Your task to perform on an android device: Do I have any events tomorrow? Image 0: 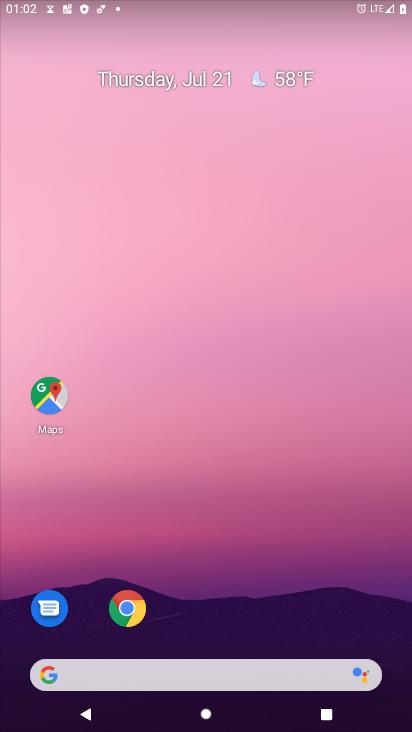
Step 0: drag from (233, 648) to (246, 4)
Your task to perform on an android device: Do I have any events tomorrow? Image 1: 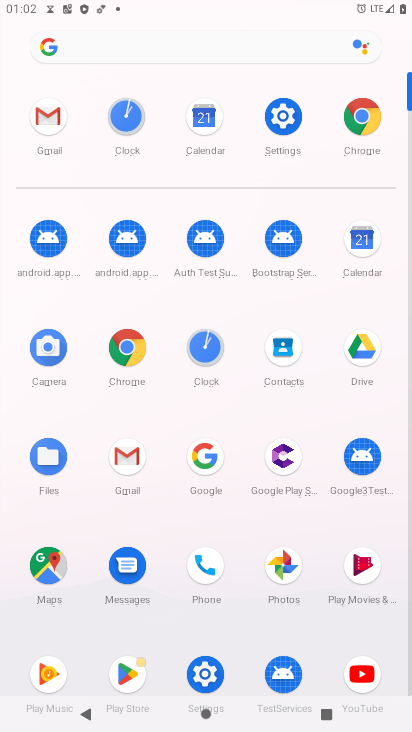
Step 1: click (361, 231)
Your task to perform on an android device: Do I have any events tomorrow? Image 2: 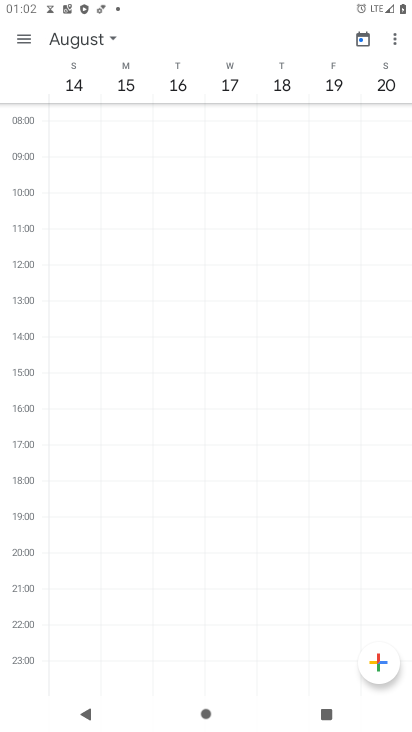
Step 2: click (109, 36)
Your task to perform on an android device: Do I have any events tomorrow? Image 3: 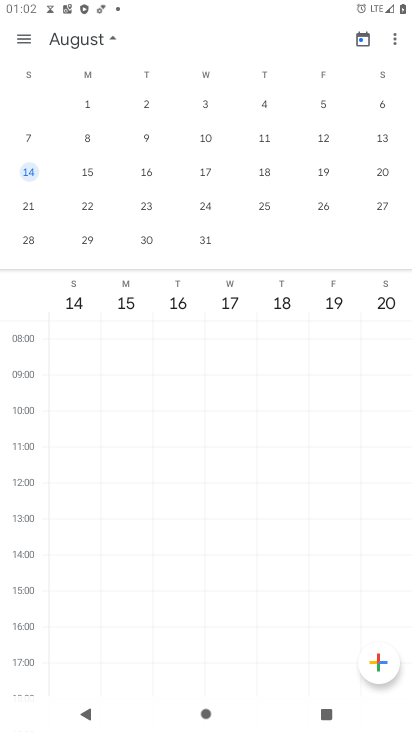
Step 3: drag from (30, 192) to (388, 204)
Your task to perform on an android device: Do I have any events tomorrow? Image 4: 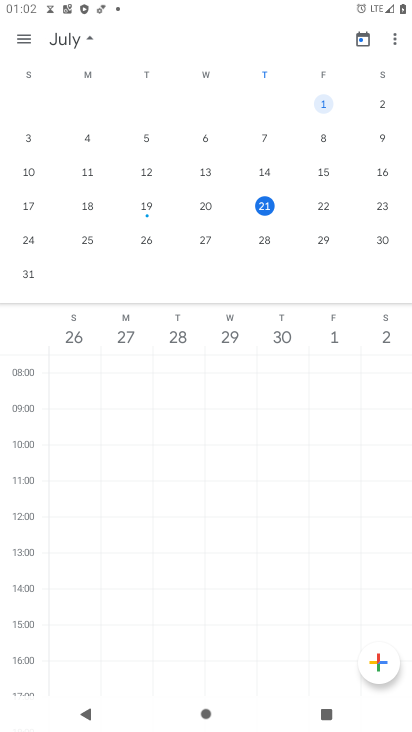
Step 4: click (323, 204)
Your task to perform on an android device: Do I have any events tomorrow? Image 5: 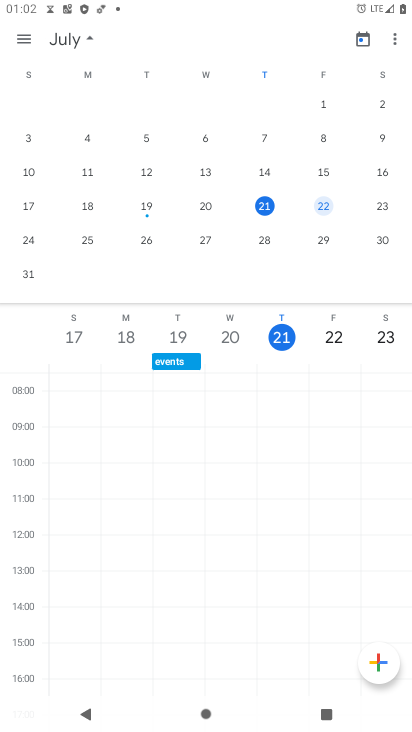
Step 5: click (332, 337)
Your task to perform on an android device: Do I have any events tomorrow? Image 6: 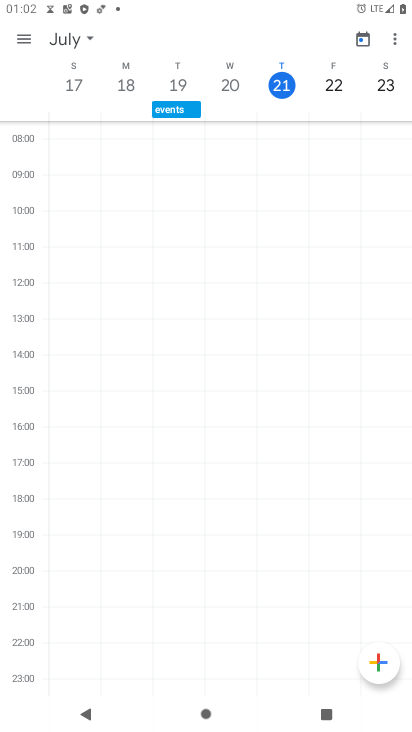
Step 6: click (286, 84)
Your task to perform on an android device: Do I have any events tomorrow? Image 7: 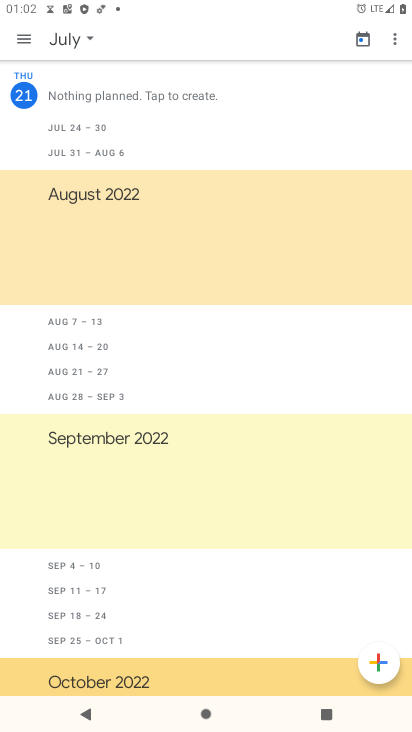
Step 7: click (22, 101)
Your task to perform on an android device: Do I have any events tomorrow? Image 8: 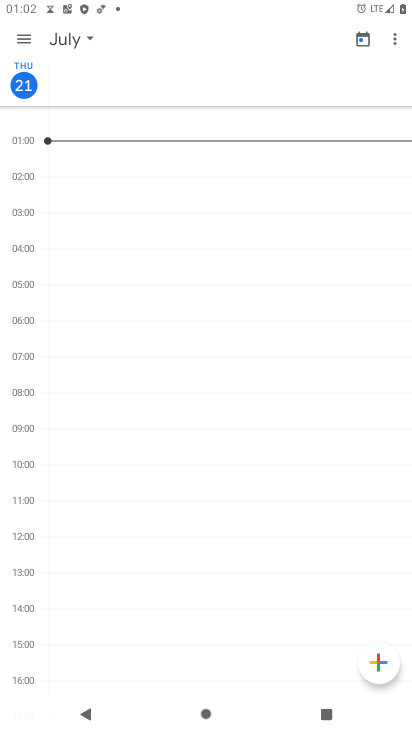
Step 8: click (24, 81)
Your task to perform on an android device: Do I have any events tomorrow? Image 9: 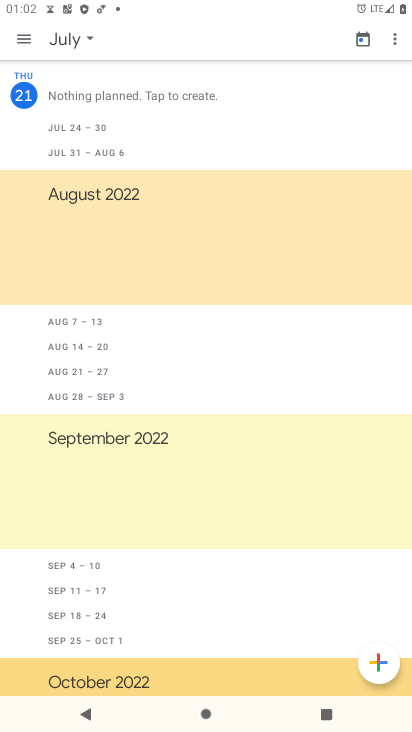
Step 9: click (80, 42)
Your task to perform on an android device: Do I have any events tomorrow? Image 10: 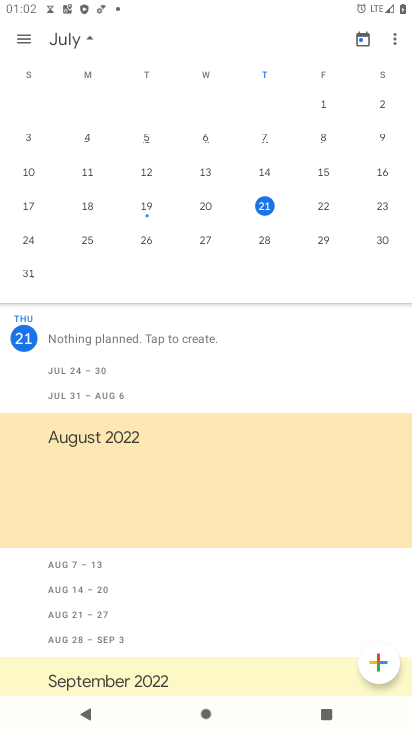
Step 10: click (326, 207)
Your task to perform on an android device: Do I have any events tomorrow? Image 11: 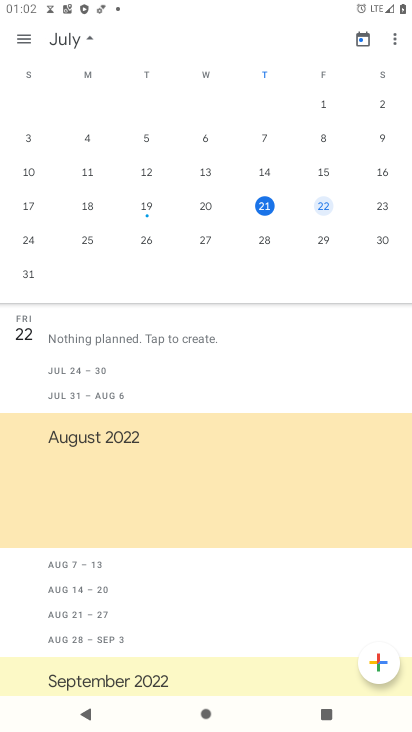
Step 11: click (27, 326)
Your task to perform on an android device: Do I have any events tomorrow? Image 12: 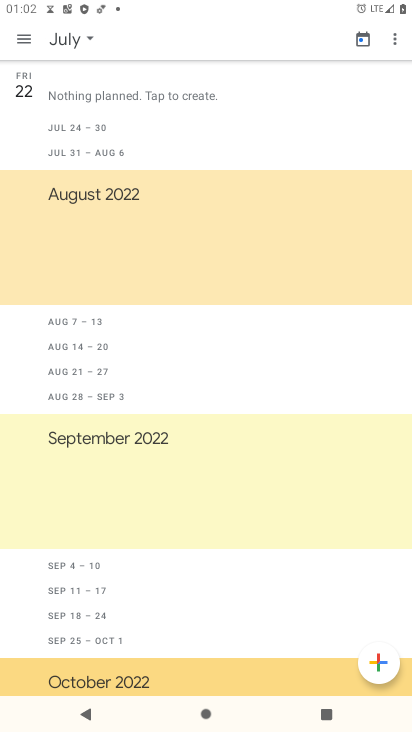
Step 12: click (25, 82)
Your task to perform on an android device: Do I have any events tomorrow? Image 13: 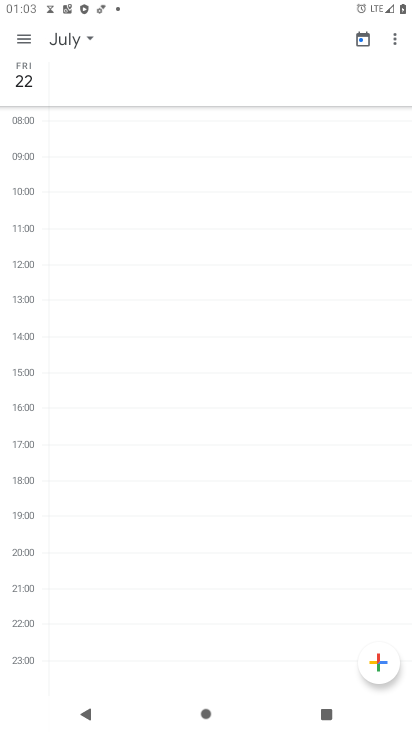
Step 13: task complete